Your task to perform on an android device: Open the calendar app, open the side menu, and click the "Day" option Image 0: 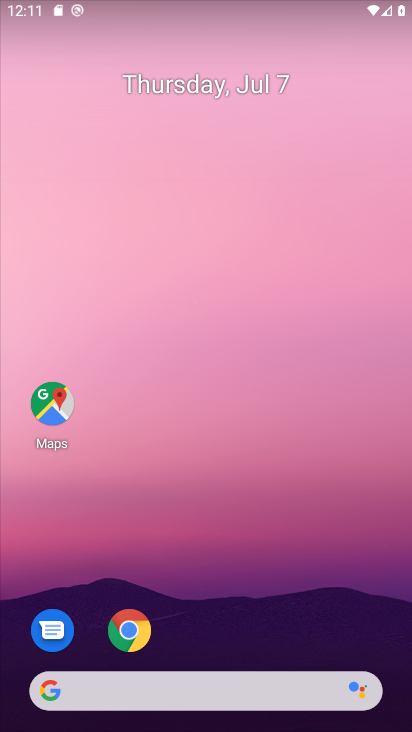
Step 0: drag from (167, 622) to (192, 211)
Your task to perform on an android device: Open the calendar app, open the side menu, and click the "Day" option Image 1: 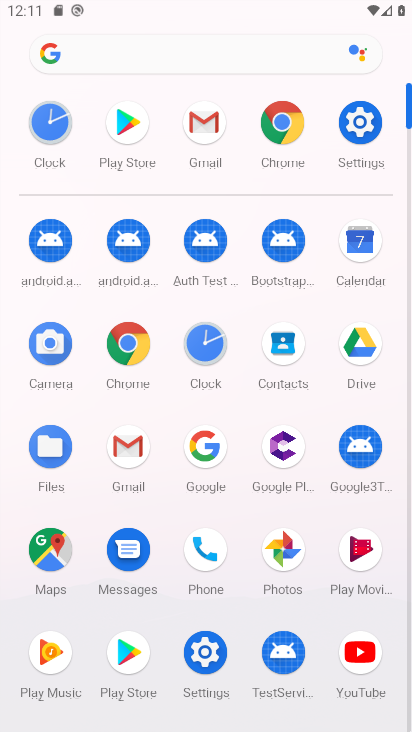
Step 1: click (358, 239)
Your task to perform on an android device: Open the calendar app, open the side menu, and click the "Day" option Image 2: 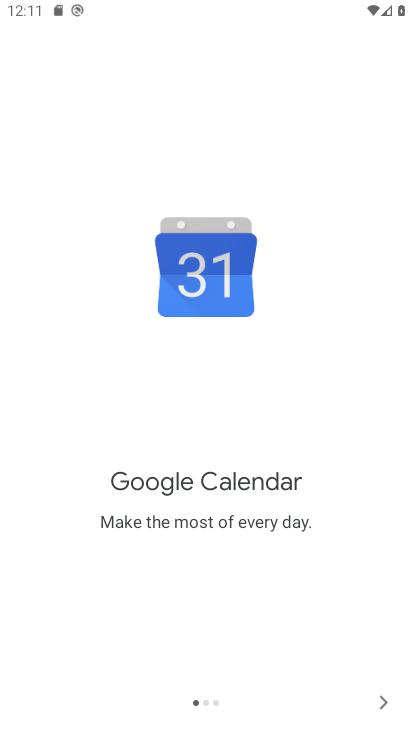
Step 2: click (389, 702)
Your task to perform on an android device: Open the calendar app, open the side menu, and click the "Day" option Image 3: 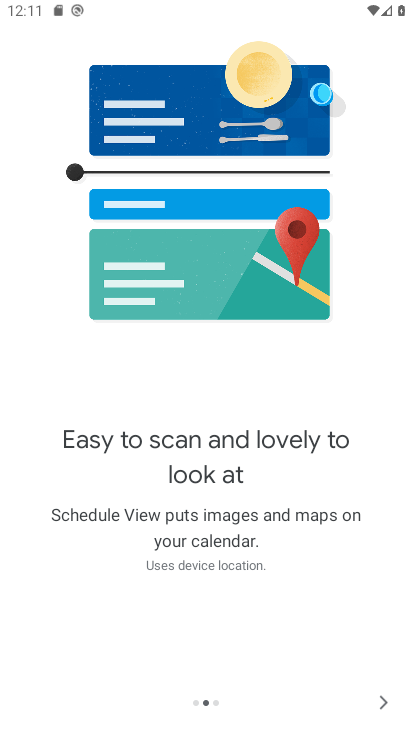
Step 3: click (384, 702)
Your task to perform on an android device: Open the calendar app, open the side menu, and click the "Day" option Image 4: 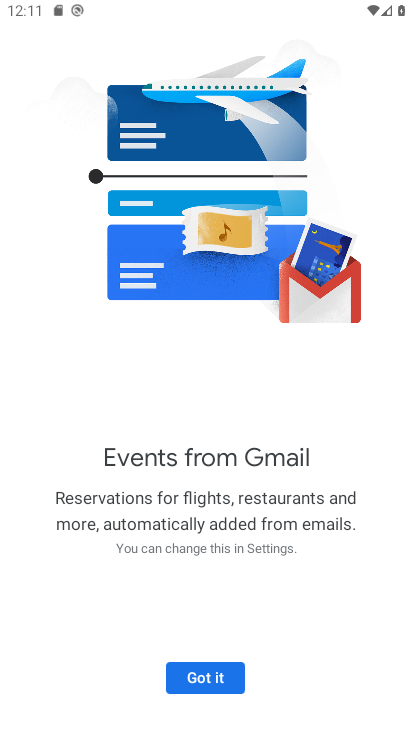
Step 4: click (384, 702)
Your task to perform on an android device: Open the calendar app, open the side menu, and click the "Day" option Image 5: 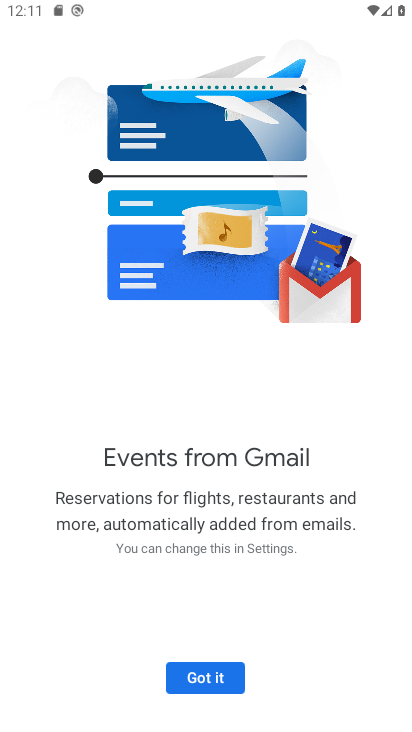
Step 5: click (190, 666)
Your task to perform on an android device: Open the calendar app, open the side menu, and click the "Day" option Image 6: 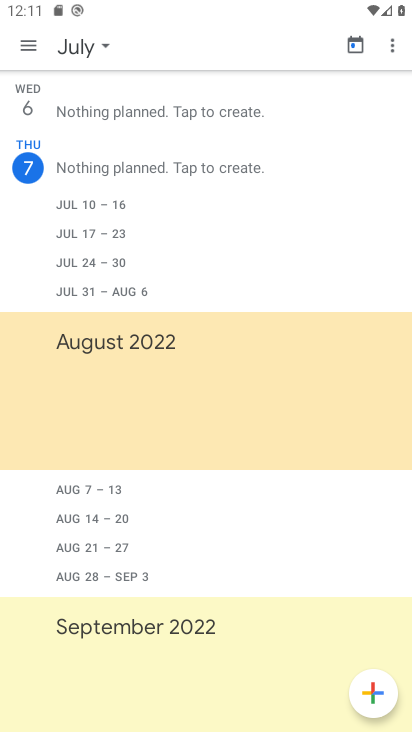
Step 6: click (28, 46)
Your task to perform on an android device: Open the calendar app, open the side menu, and click the "Day" option Image 7: 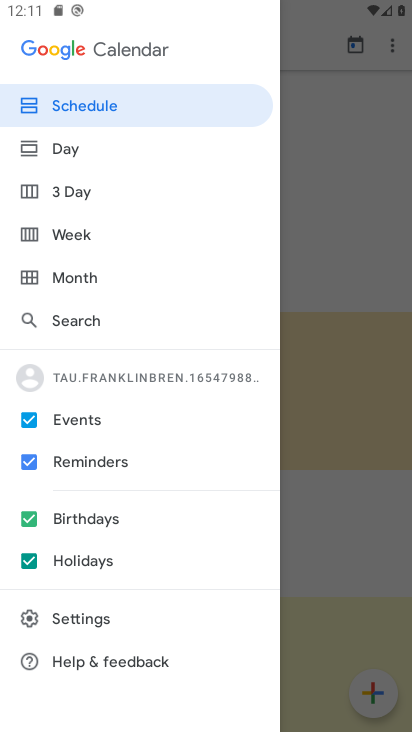
Step 7: click (77, 152)
Your task to perform on an android device: Open the calendar app, open the side menu, and click the "Day" option Image 8: 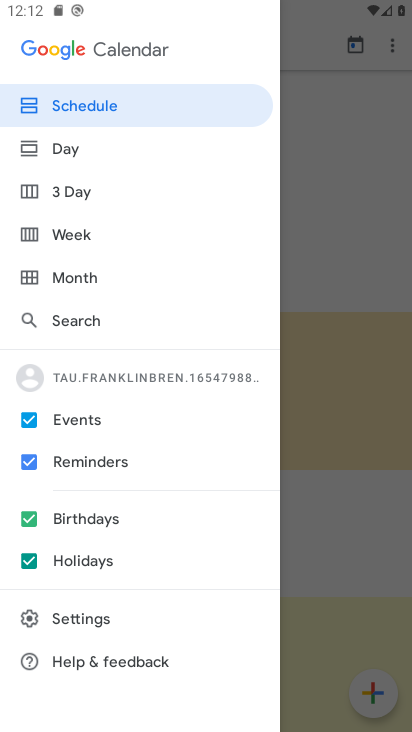
Step 8: click (72, 138)
Your task to perform on an android device: Open the calendar app, open the side menu, and click the "Day" option Image 9: 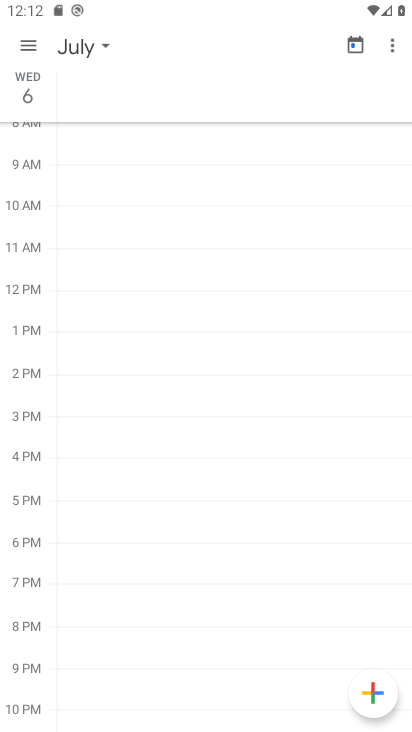
Step 9: task complete